Your task to perform on an android device: What's a good restaurant in San Jose? Image 0: 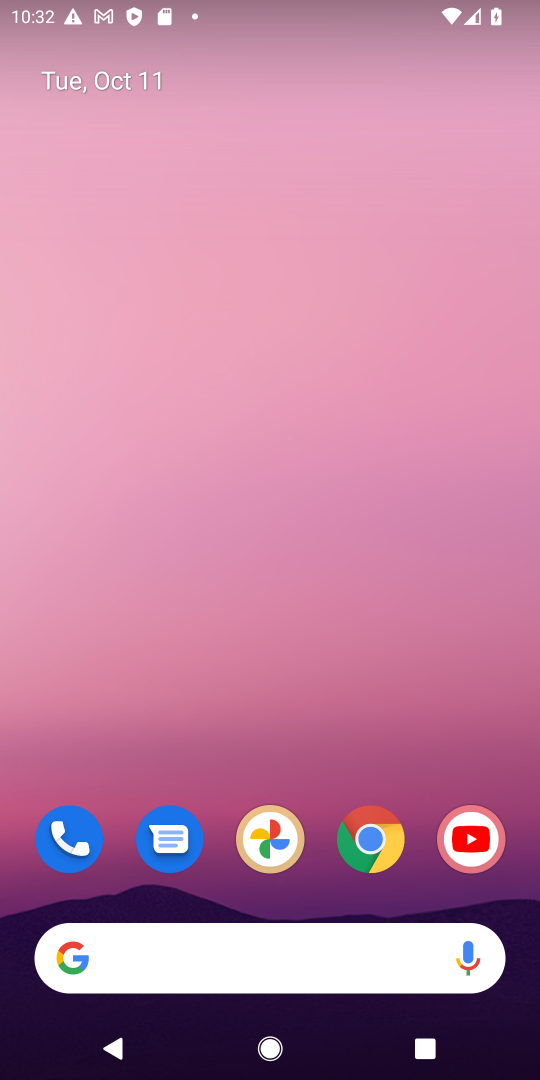
Step 0: drag from (301, 880) to (413, 14)
Your task to perform on an android device: What's a good restaurant in San Jose? Image 1: 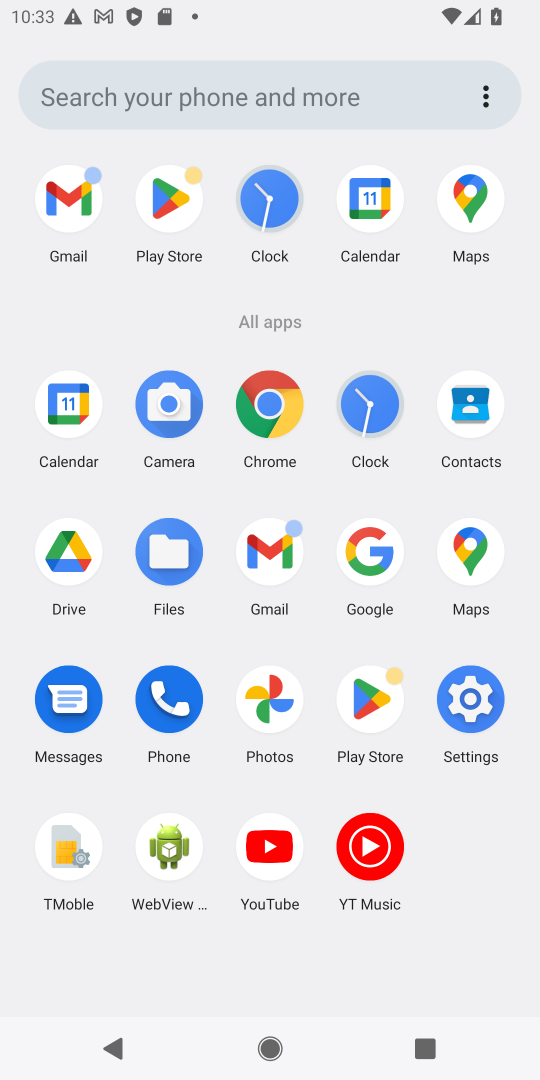
Step 1: drag from (429, 1066) to (539, 734)
Your task to perform on an android device: What's a good restaurant in San Jose? Image 2: 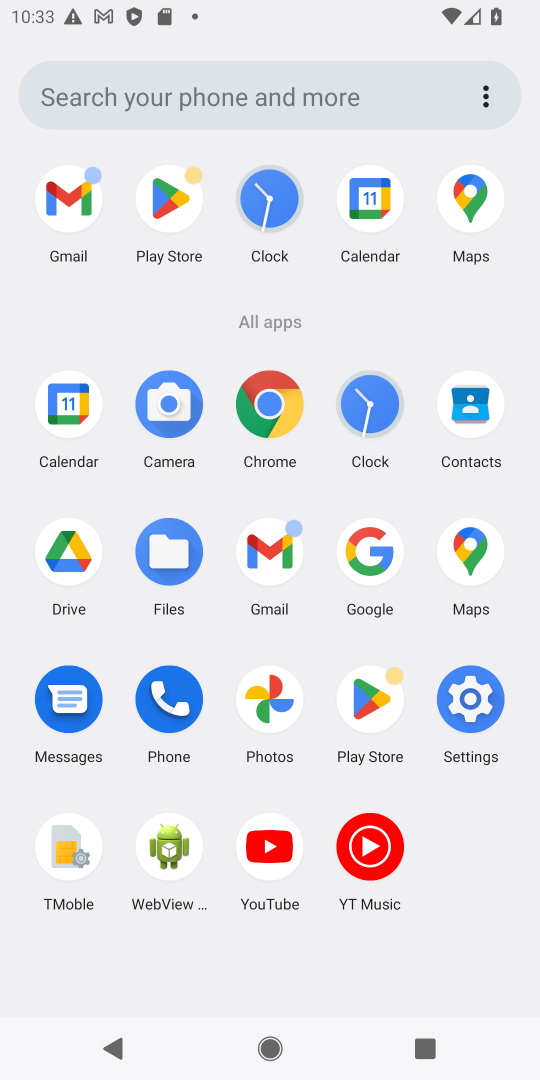
Step 2: click (363, 558)
Your task to perform on an android device: What's a good restaurant in San Jose? Image 3: 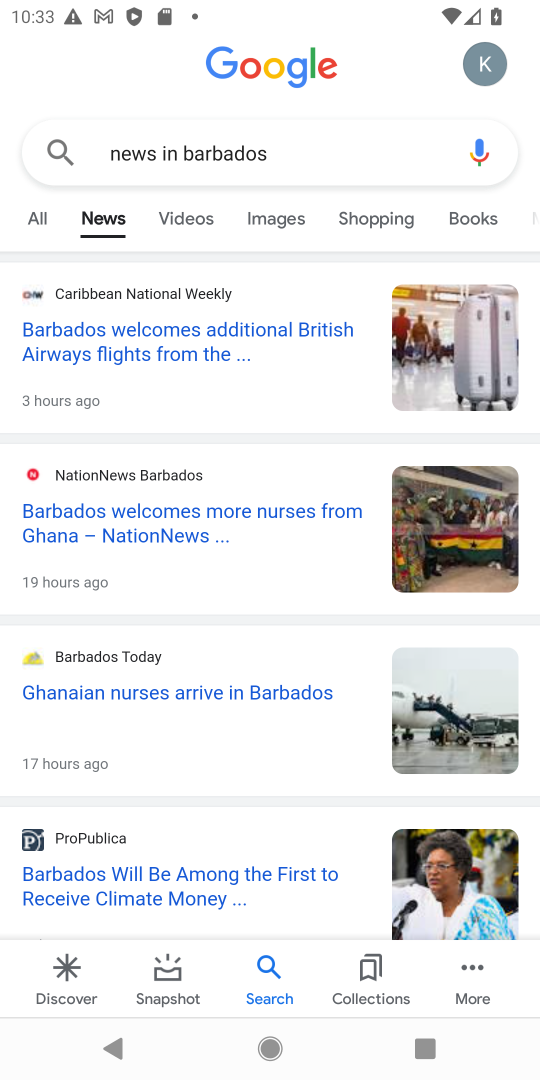
Step 3: click (393, 164)
Your task to perform on an android device: What's a good restaurant in San Jose? Image 4: 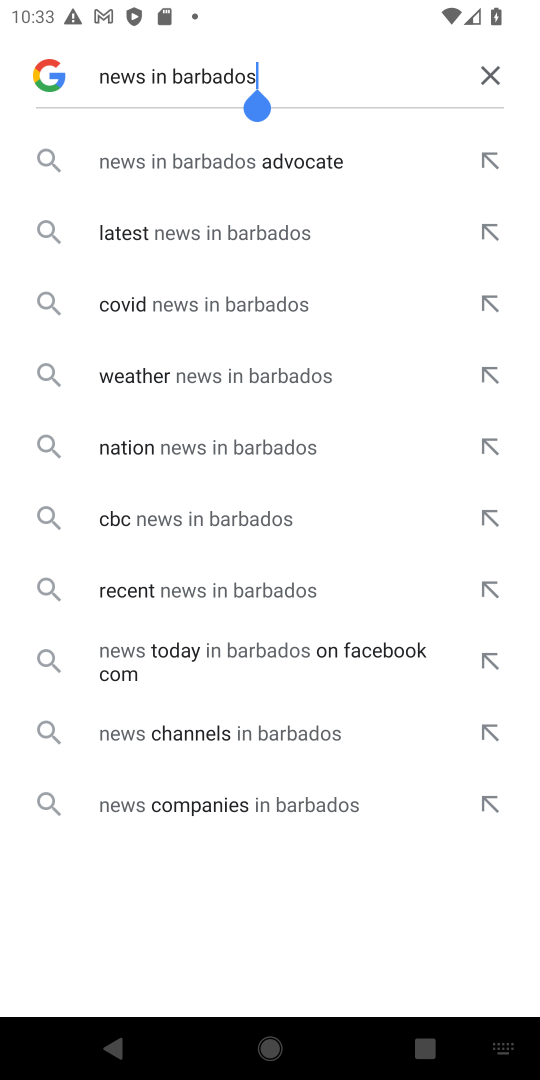
Step 4: click (501, 69)
Your task to perform on an android device: What's a good restaurant in San Jose? Image 5: 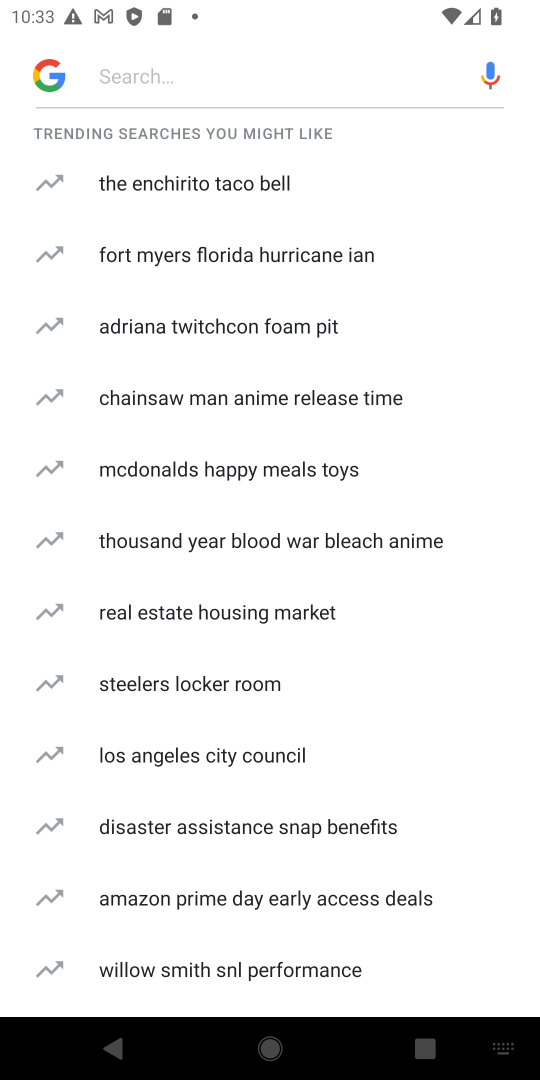
Step 5: type "good restaurant in San Jose"
Your task to perform on an android device: What's a good restaurant in San Jose? Image 6: 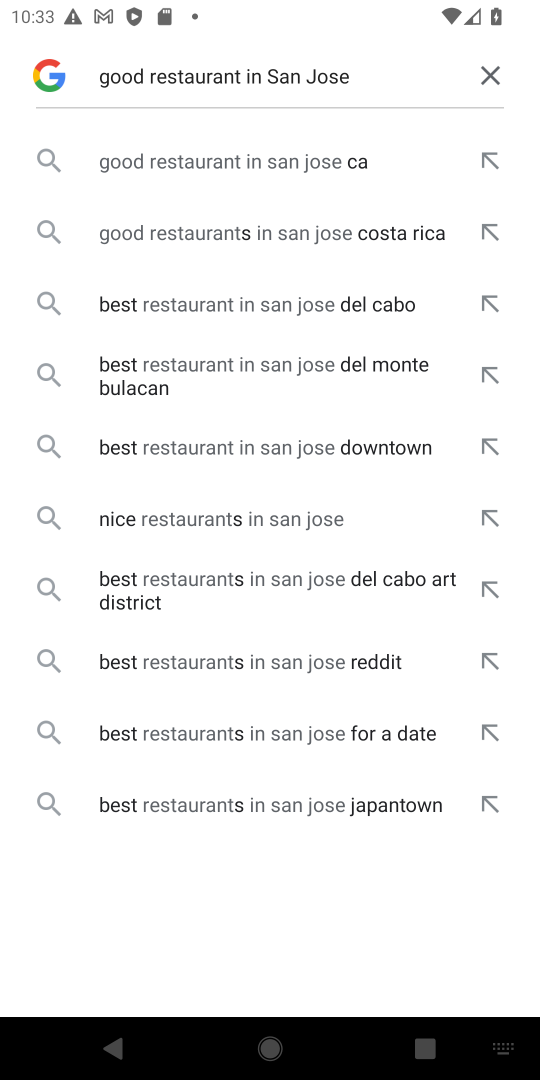
Step 6: click (245, 238)
Your task to perform on an android device: What's a good restaurant in San Jose? Image 7: 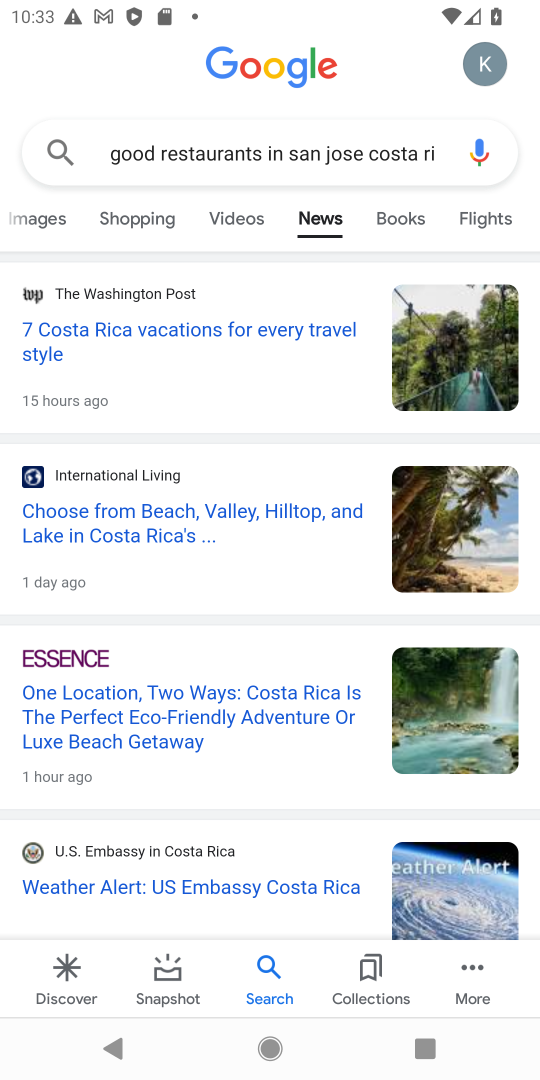
Step 7: drag from (47, 224) to (297, 259)
Your task to perform on an android device: What's a good restaurant in San Jose? Image 8: 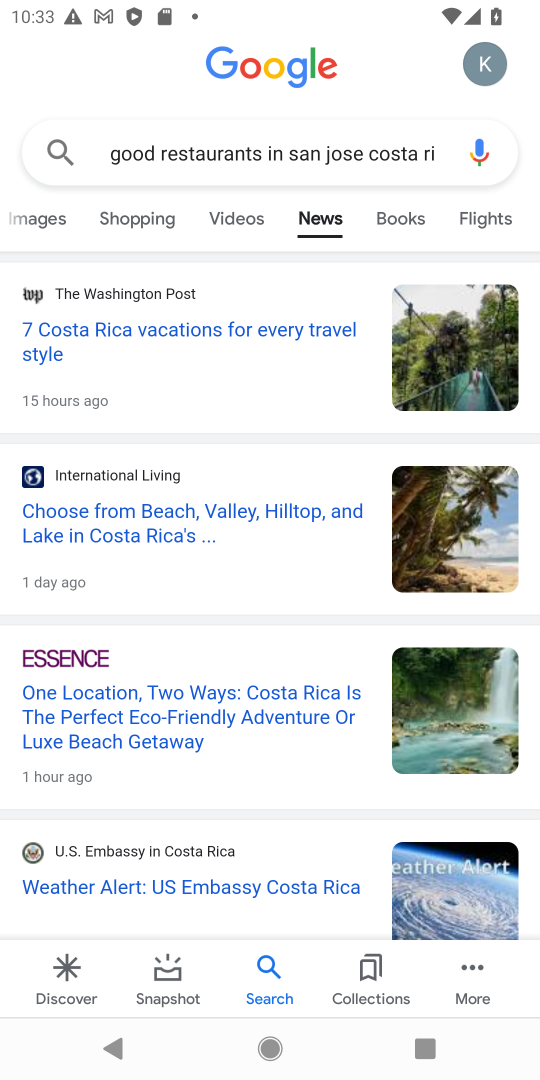
Step 8: drag from (150, 214) to (345, 199)
Your task to perform on an android device: What's a good restaurant in San Jose? Image 9: 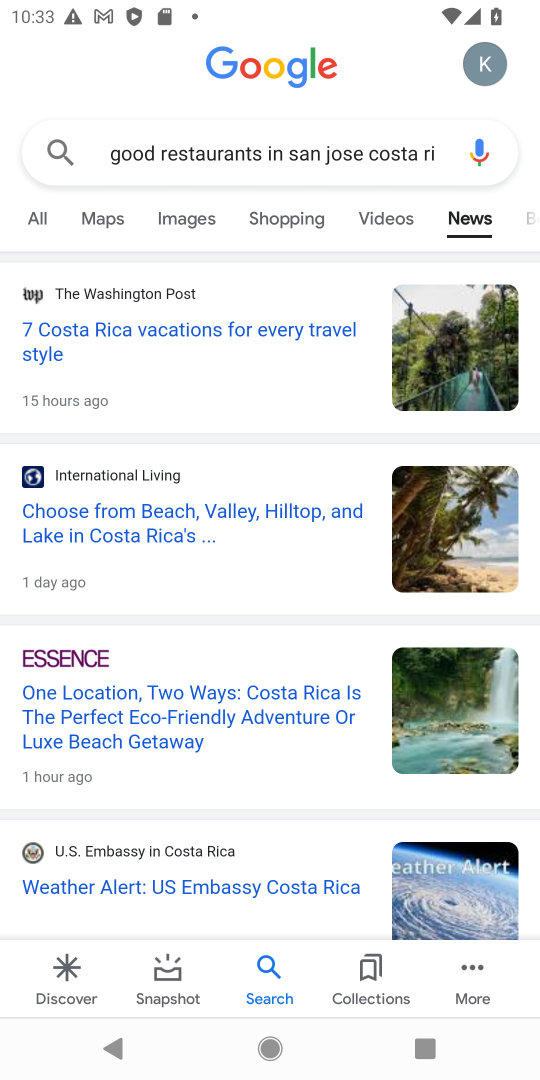
Step 9: click (32, 223)
Your task to perform on an android device: What's a good restaurant in San Jose? Image 10: 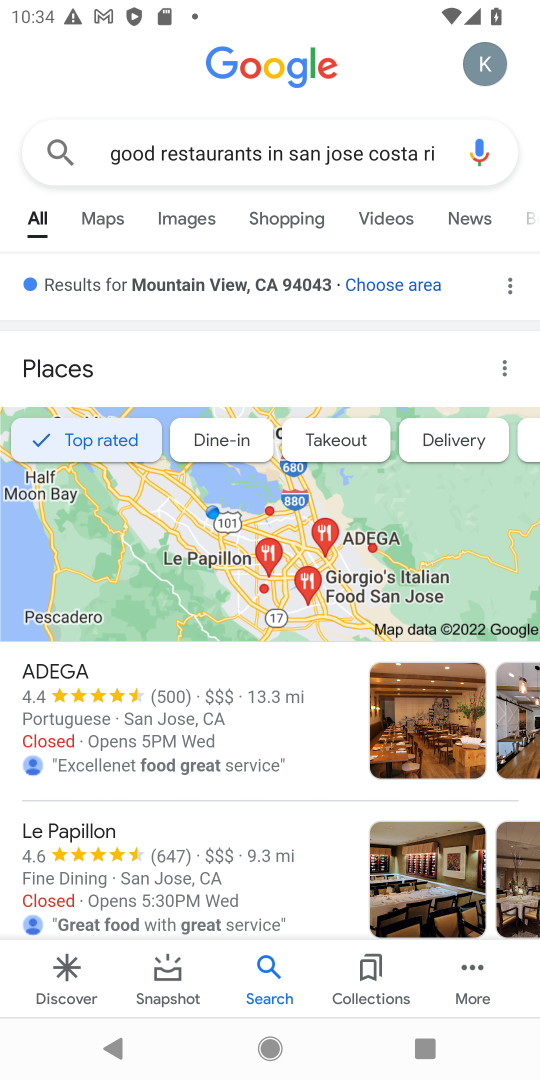
Step 10: task complete